Your task to perform on an android device: show emergency info Image 0: 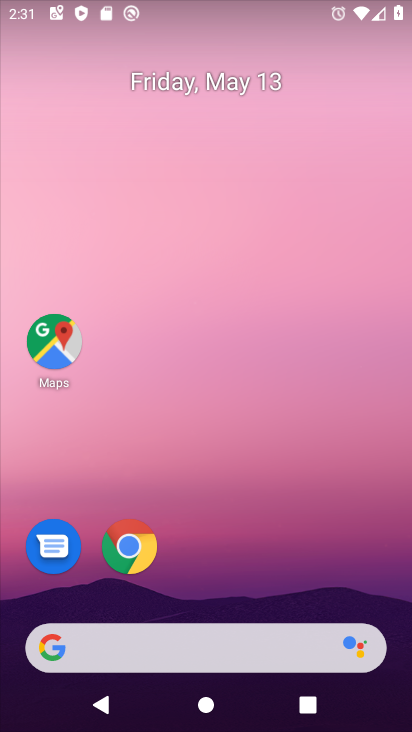
Step 0: drag from (351, 413) to (365, 18)
Your task to perform on an android device: show emergency info Image 1: 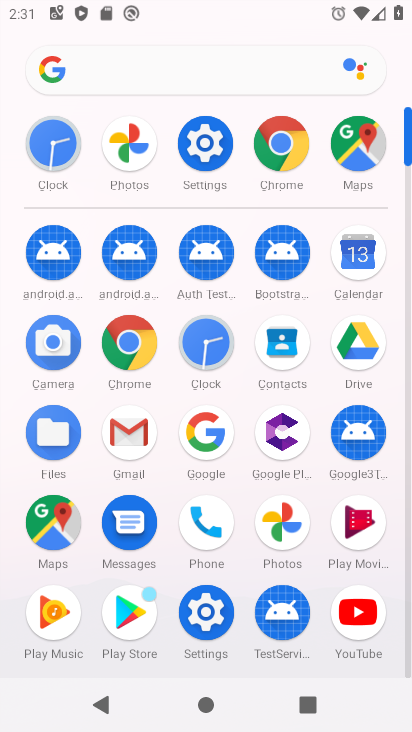
Step 1: click (208, 141)
Your task to perform on an android device: show emergency info Image 2: 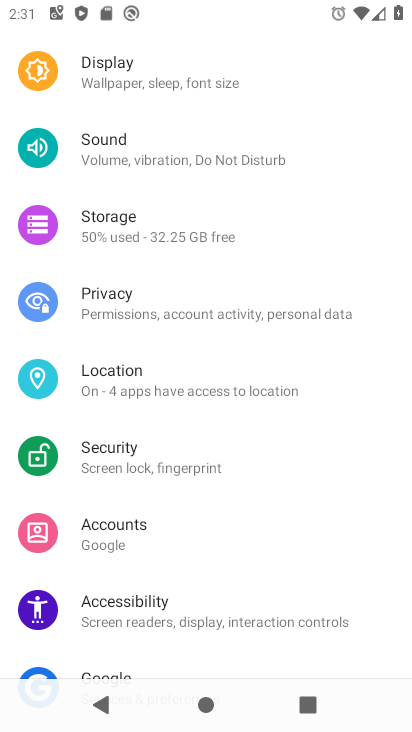
Step 2: drag from (259, 597) to (293, 28)
Your task to perform on an android device: show emergency info Image 3: 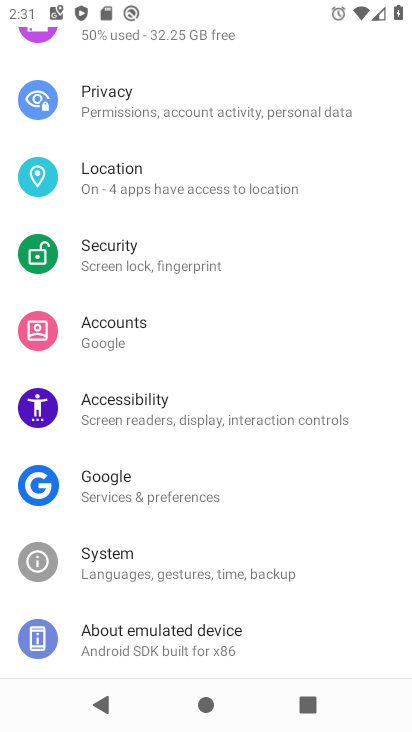
Step 3: click (179, 655)
Your task to perform on an android device: show emergency info Image 4: 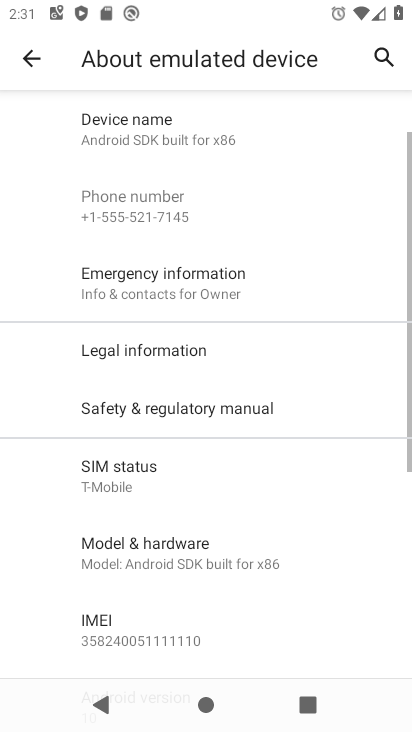
Step 4: click (208, 293)
Your task to perform on an android device: show emergency info Image 5: 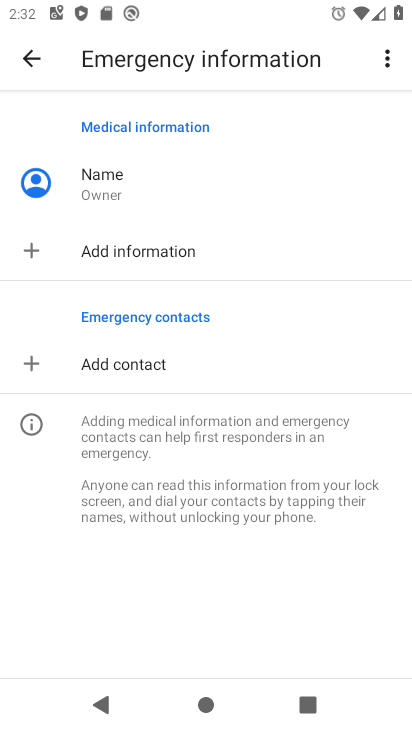
Step 5: task complete